Your task to perform on an android device: toggle data saver in the chrome app Image 0: 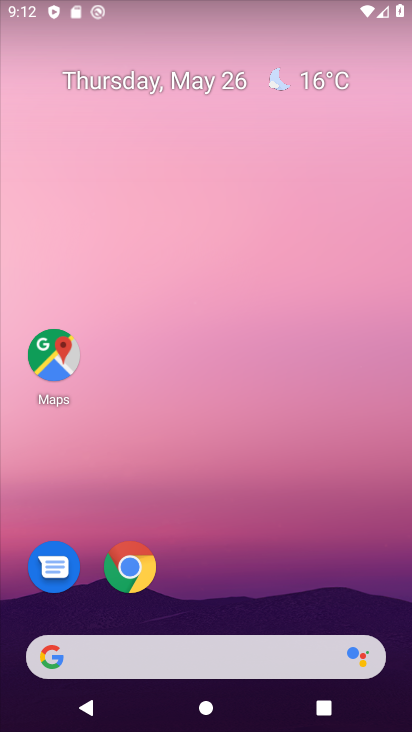
Step 0: click (141, 563)
Your task to perform on an android device: toggle data saver in the chrome app Image 1: 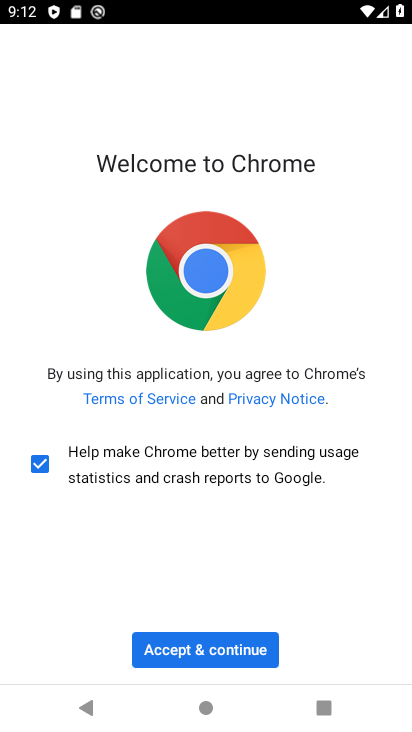
Step 1: click (225, 649)
Your task to perform on an android device: toggle data saver in the chrome app Image 2: 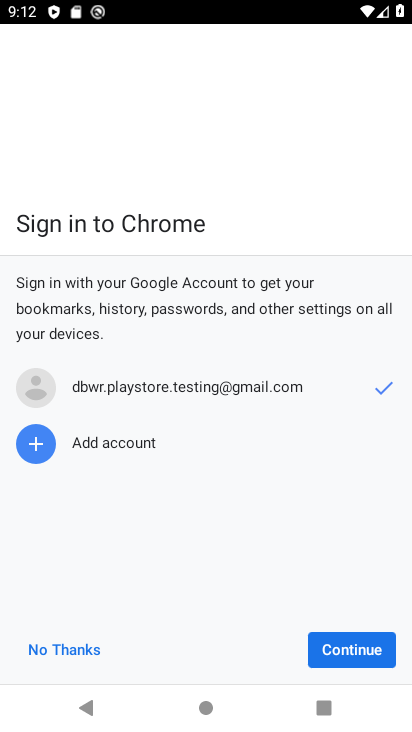
Step 2: click (225, 649)
Your task to perform on an android device: toggle data saver in the chrome app Image 3: 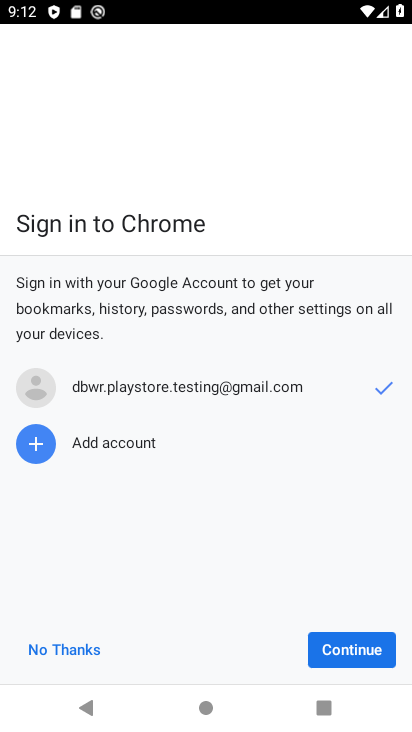
Step 3: click (327, 653)
Your task to perform on an android device: toggle data saver in the chrome app Image 4: 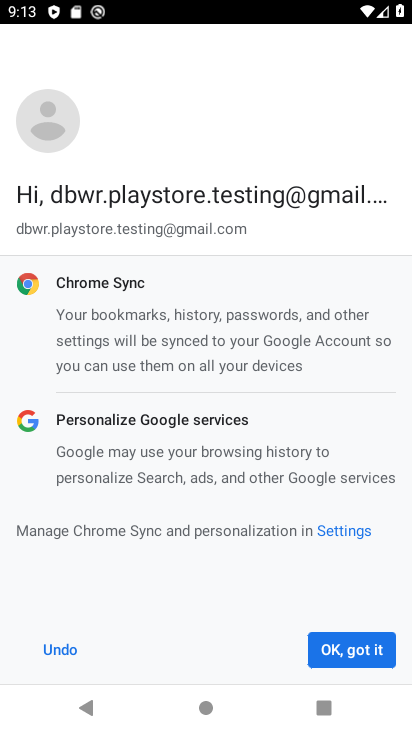
Step 4: click (328, 654)
Your task to perform on an android device: toggle data saver in the chrome app Image 5: 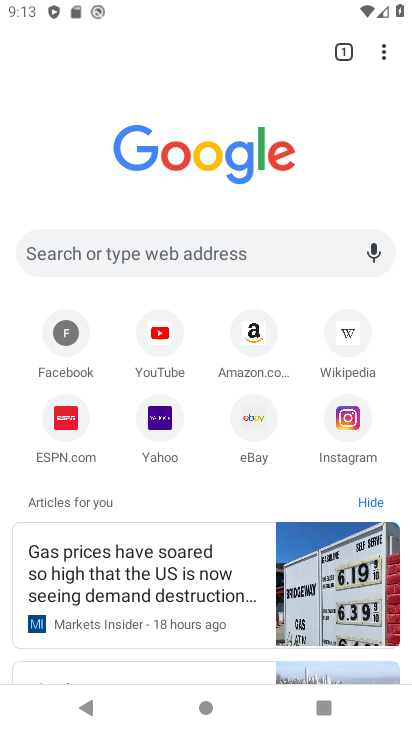
Step 5: click (380, 48)
Your task to perform on an android device: toggle data saver in the chrome app Image 6: 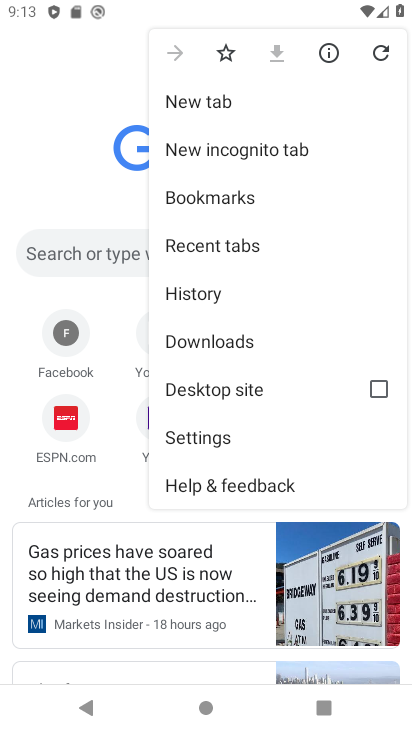
Step 6: drag from (297, 451) to (330, 146)
Your task to perform on an android device: toggle data saver in the chrome app Image 7: 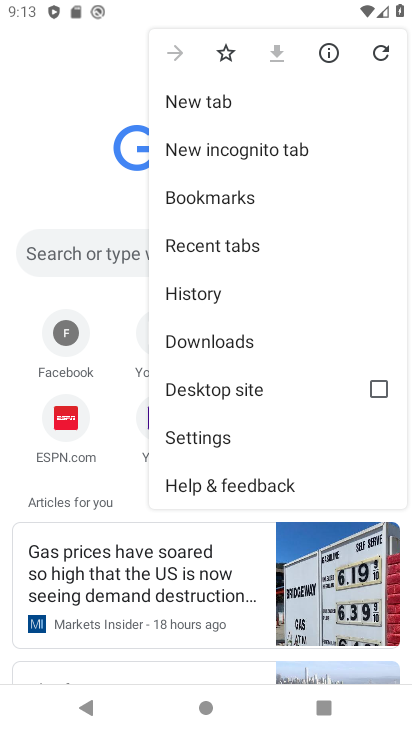
Step 7: click (213, 440)
Your task to perform on an android device: toggle data saver in the chrome app Image 8: 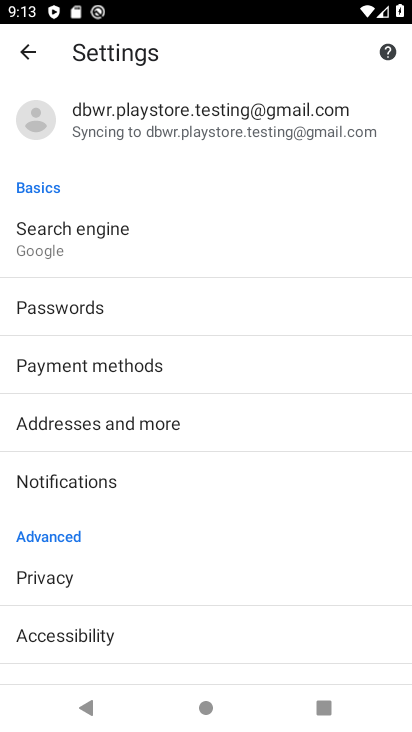
Step 8: drag from (190, 640) to (243, 284)
Your task to perform on an android device: toggle data saver in the chrome app Image 9: 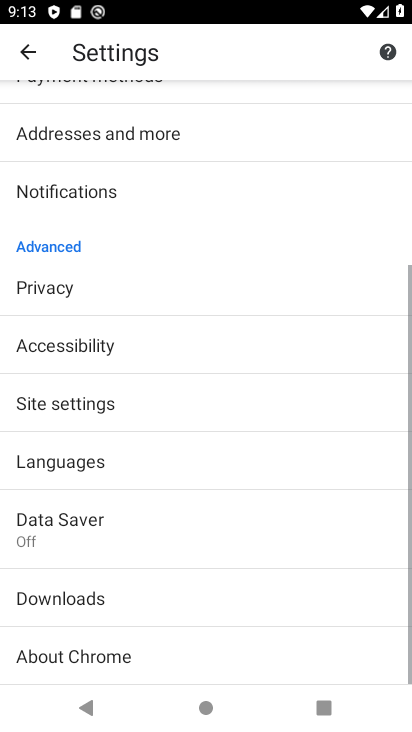
Step 9: drag from (226, 657) to (269, 353)
Your task to perform on an android device: toggle data saver in the chrome app Image 10: 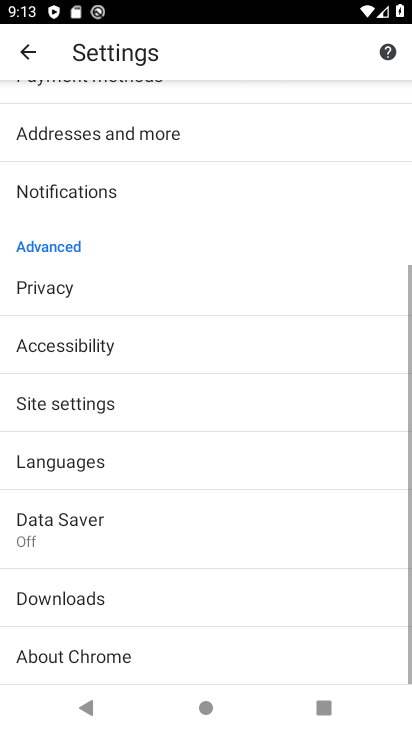
Step 10: click (74, 517)
Your task to perform on an android device: toggle data saver in the chrome app Image 11: 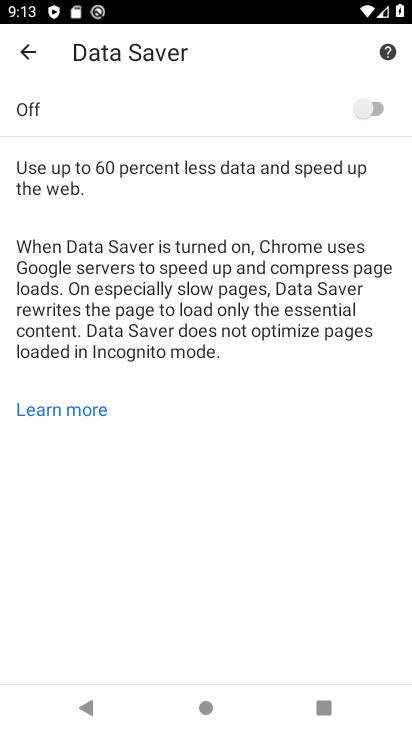
Step 11: click (384, 85)
Your task to perform on an android device: toggle data saver in the chrome app Image 12: 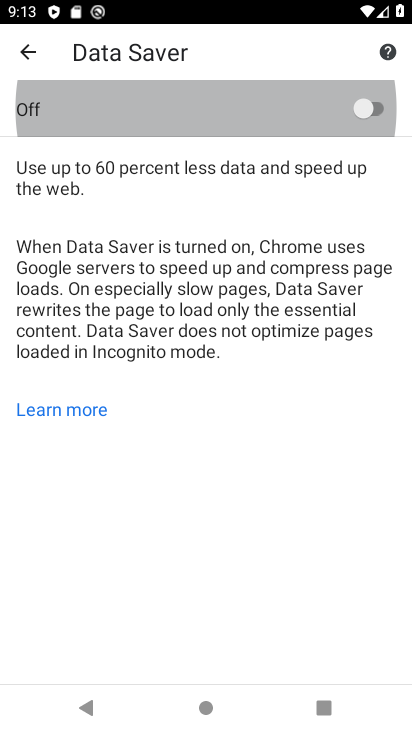
Step 12: click (382, 103)
Your task to perform on an android device: toggle data saver in the chrome app Image 13: 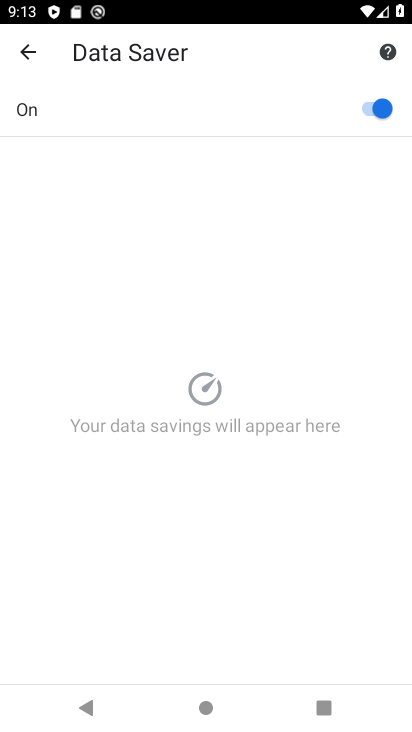
Step 13: task complete